Your task to perform on an android device: Open sound settings Image 0: 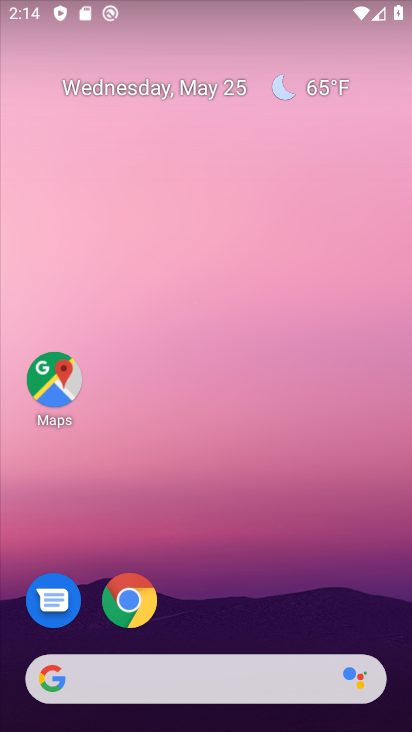
Step 0: drag from (226, 568) to (252, 191)
Your task to perform on an android device: Open sound settings Image 1: 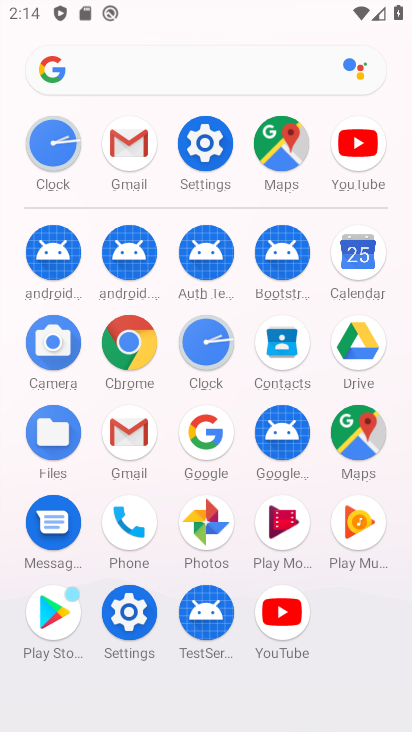
Step 1: click (218, 220)
Your task to perform on an android device: Open sound settings Image 2: 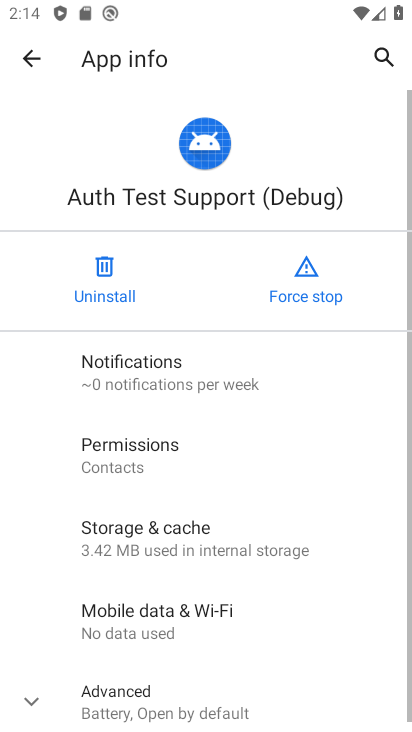
Step 2: click (213, 174)
Your task to perform on an android device: Open sound settings Image 3: 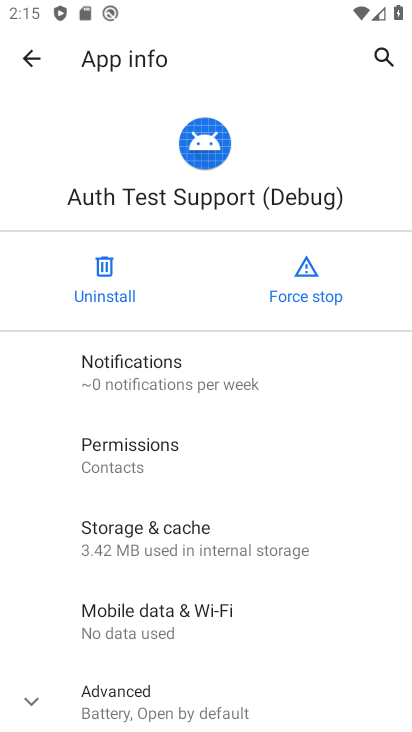
Step 3: click (19, 49)
Your task to perform on an android device: Open sound settings Image 4: 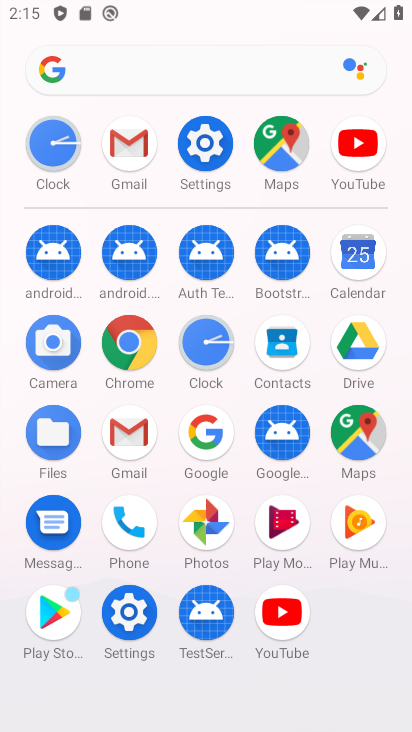
Step 4: click (134, 607)
Your task to perform on an android device: Open sound settings Image 5: 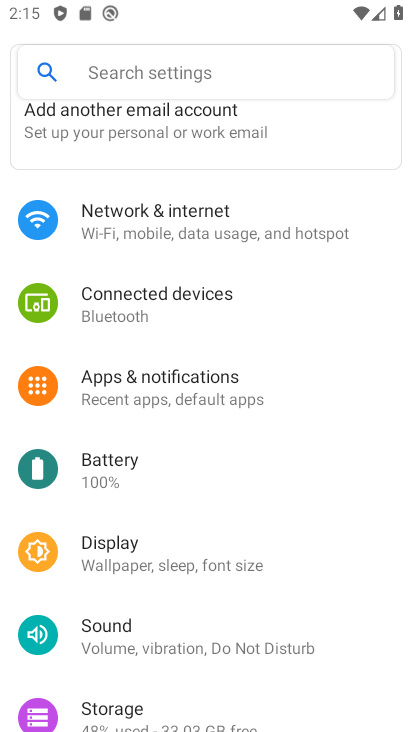
Step 5: drag from (180, 194) to (186, 565)
Your task to perform on an android device: Open sound settings Image 6: 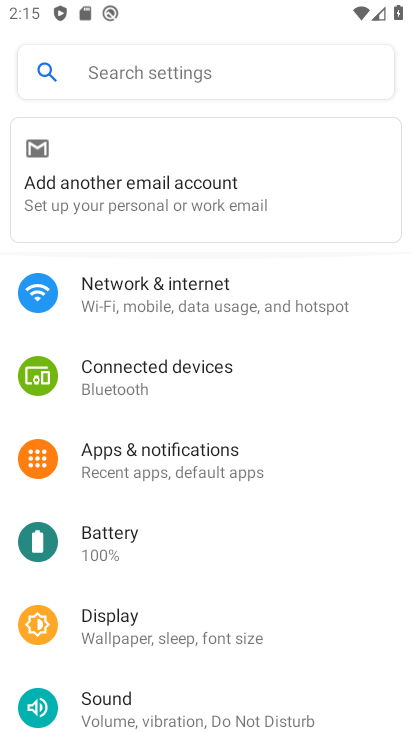
Step 6: drag from (169, 616) to (182, 235)
Your task to perform on an android device: Open sound settings Image 7: 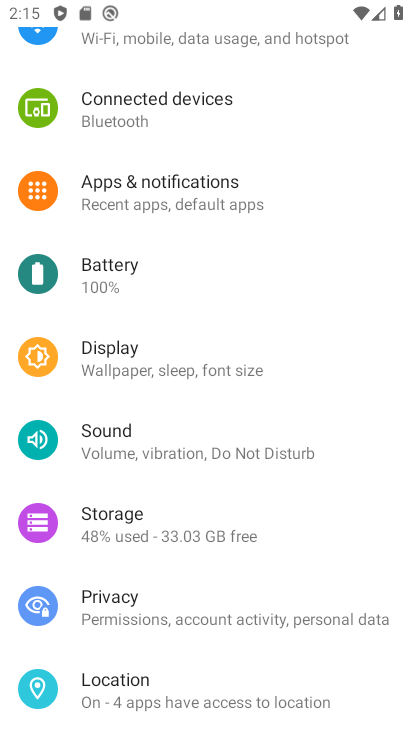
Step 7: click (112, 439)
Your task to perform on an android device: Open sound settings Image 8: 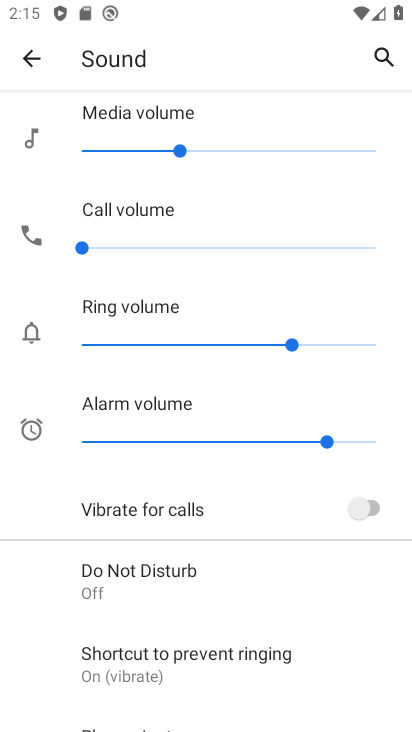
Step 8: task complete